Your task to perform on an android device: What's the weather going to be this weekend? Image 0: 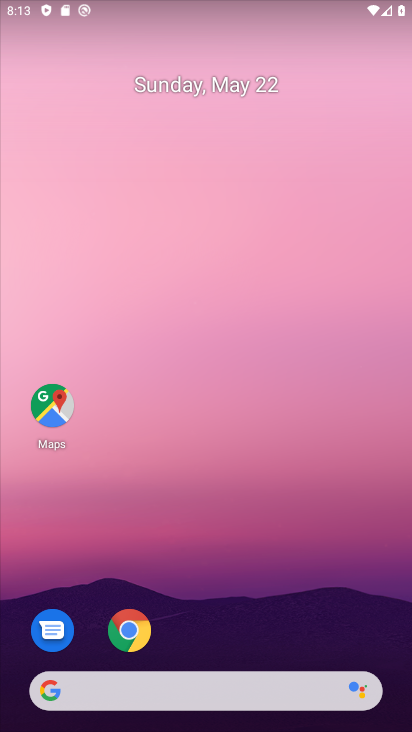
Step 0: drag from (242, 584) to (411, 192)
Your task to perform on an android device: What's the weather going to be this weekend? Image 1: 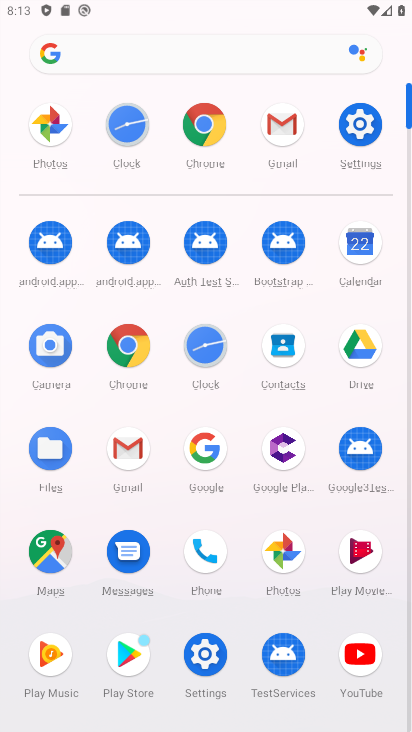
Step 1: click (357, 168)
Your task to perform on an android device: What's the weather going to be this weekend? Image 2: 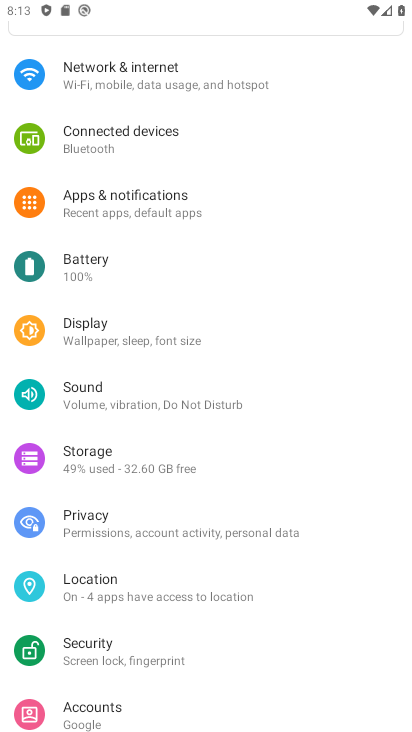
Step 2: press home button
Your task to perform on an android device: What's the weather going to be this weekend? Image 3: 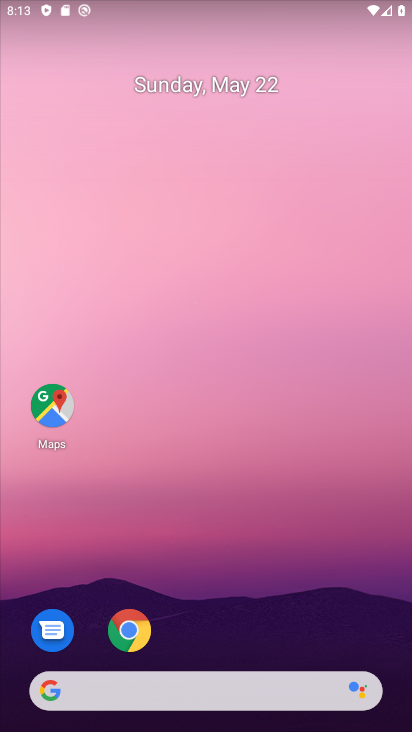
Step 3: drag from (255, 613) to (290, 108)
Your task to perform on an android device: What's the weather going to be this weekend? Image 4: 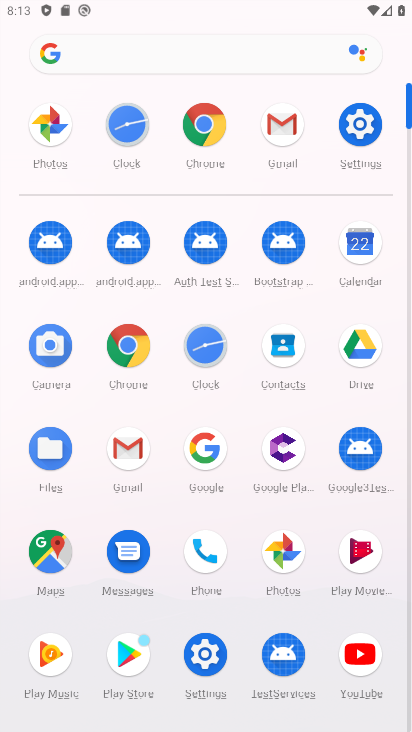
Step 4: click (370, 235)
Your task to perform on an android device: What's the weather going to be this weekend? Image 5: 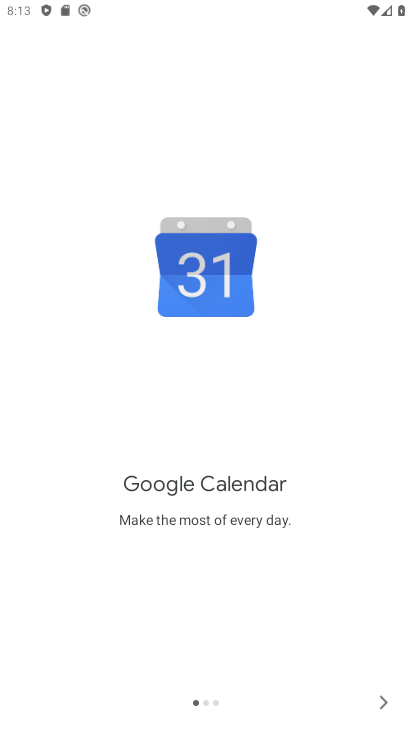
Step 5: click (373, 709)
Your task to perform on an android device: What's the weather going to be this weekend? Image 6: 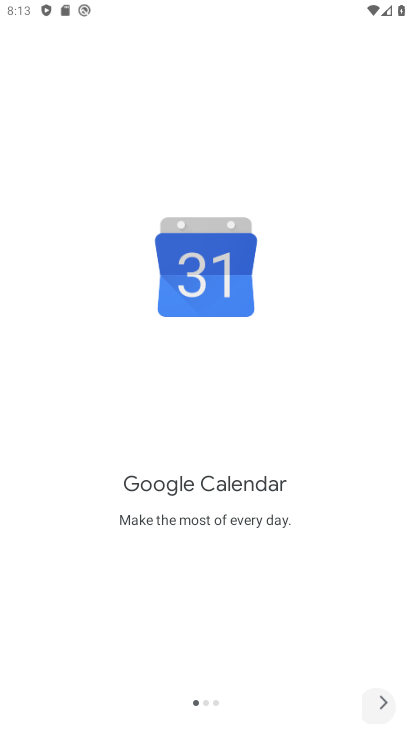
Step 6: click (373, 709)
Your task to perform on an android device: What's the weather going to be this weekend? Image 7: 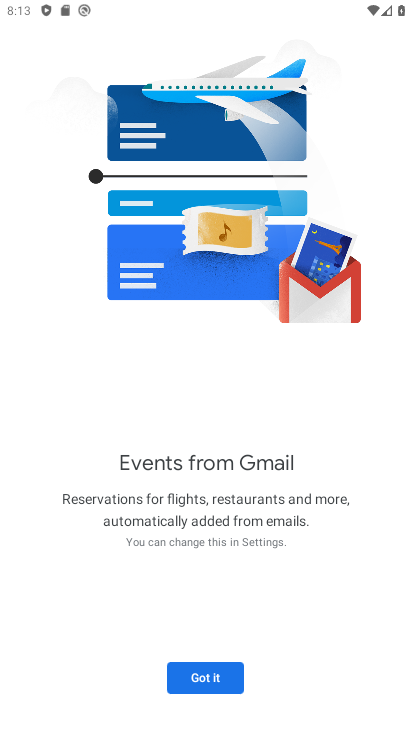
Step 7: click (373, 709)
Your task to perform on an android device: What's the weather going to be this weekend? Image 8: 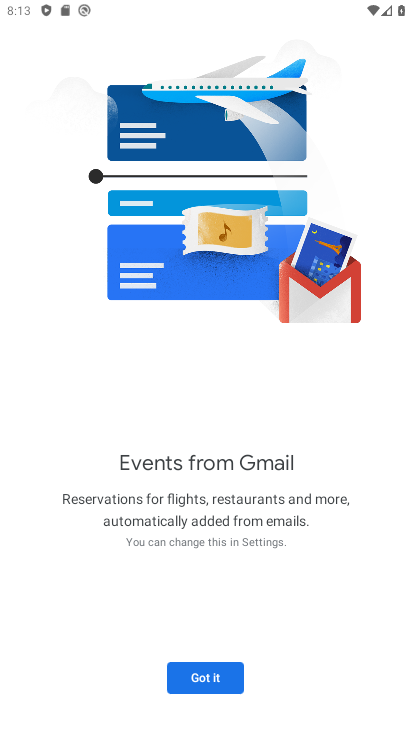
Step 8: click (214, 683)
Your task to perform on an android device: What's the weather going to be this weekend? Image 9: 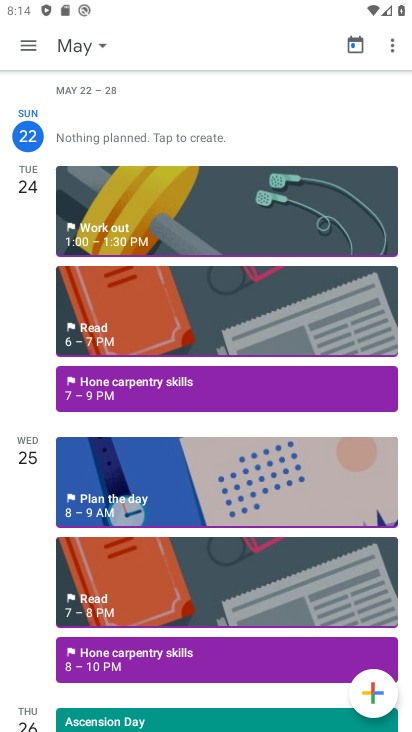
Step 9: task complete